Your task to perform on an android device: Go to Reddit.com Image 0: 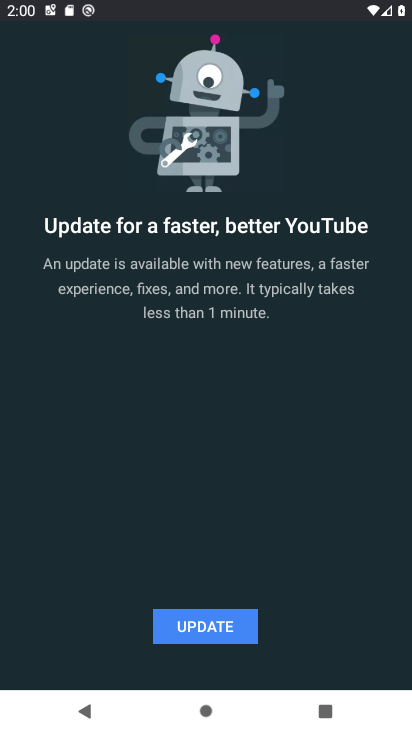
Step 0: press home button
Your task to perform on an android device: Go to Reddit.com Image 1: 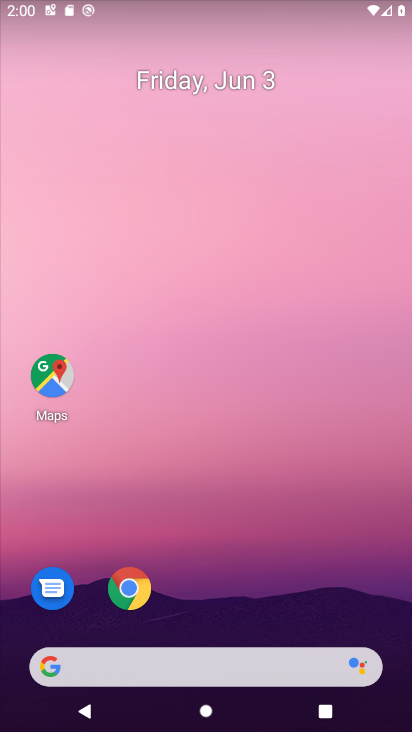
Step 1: click (132, 605)
Your task to perform on an android device: Go to Reddit.com Image 2: 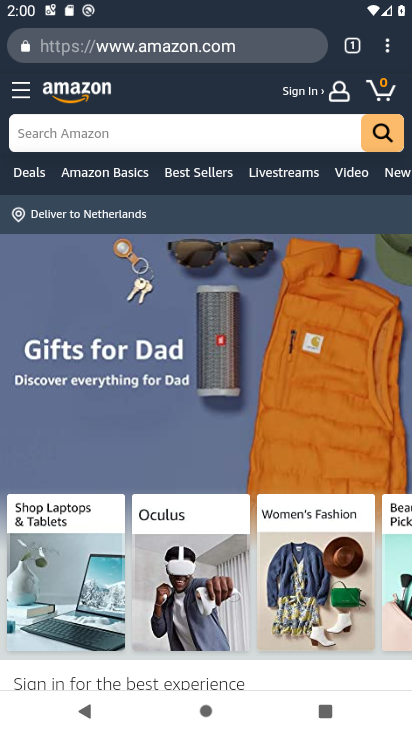
Step 2: click (216, 54)
Your task to perform on an android device: Go to Reddit.com Image 3: 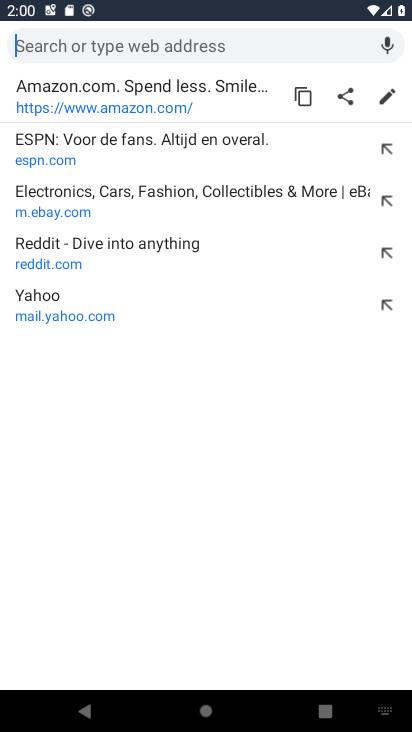
Step 3: click (145, 252)
Your task to perform on an android device: Go to Reddit.com Image 4: 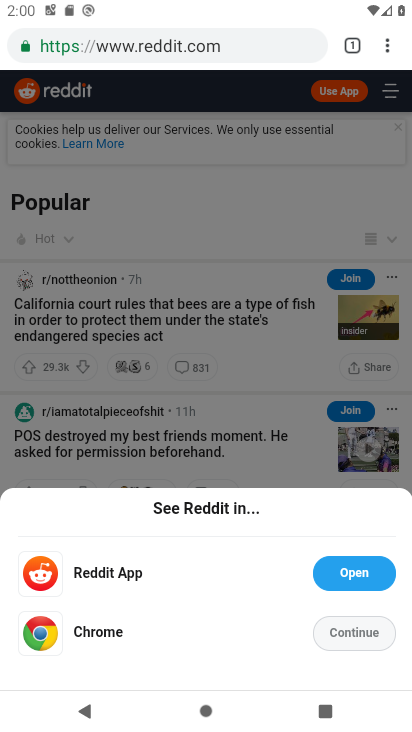
Step 4: task complete